Your task to perform on an android device: empty trash in the gmail app Image 0: 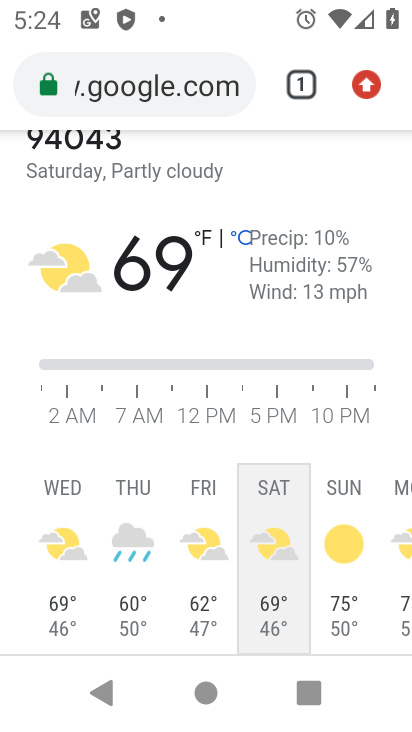
Step 0: press home button
Your task to perform on an android device: empty trash in the gmail app Image 1: 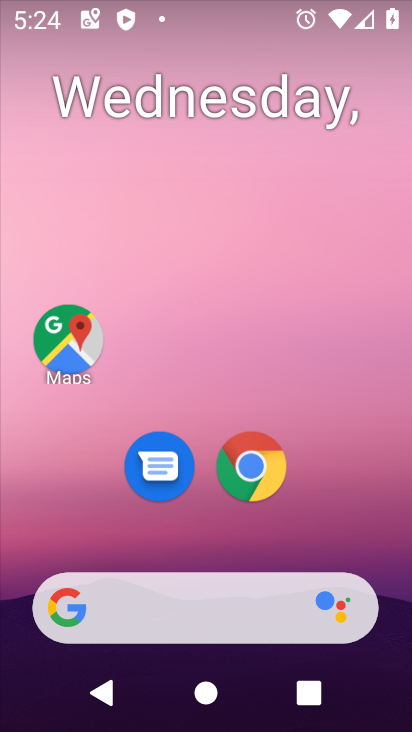
Step 1: drag from (211, 488) to (275, 108)
Your task to perform on an android device: empty trash in the gmail app Image 2: 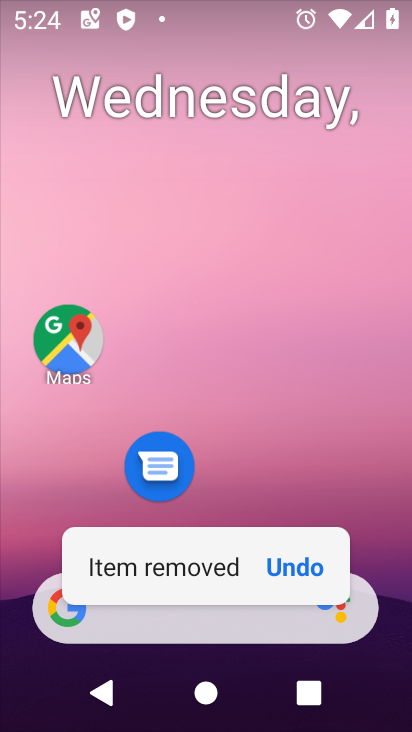
Step 2: drag from (314, 455) to (300, 76)
Your task to perform on an android device: empty trash in the gmail app Image 3: 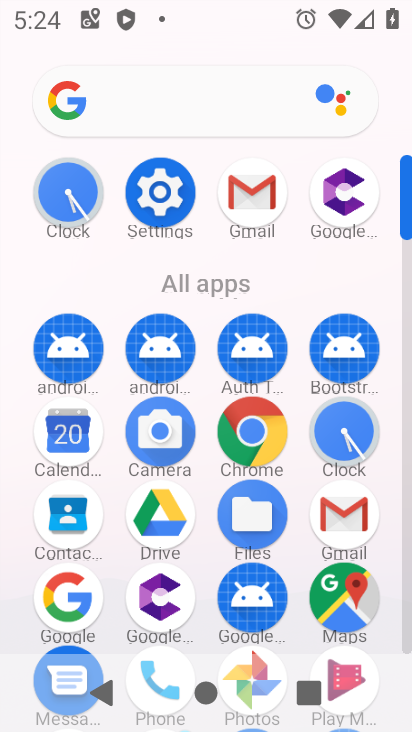
Step 3: click (361, 510)
Your task to perform on an android device: empty trash in the gmail app Image 4: 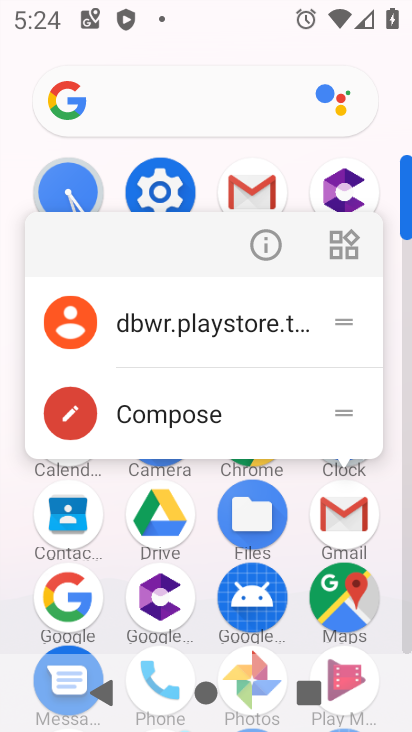
Step 4: click (338, 520)
Your task to perform on an android device: empty trash in the gmail app Image 5: 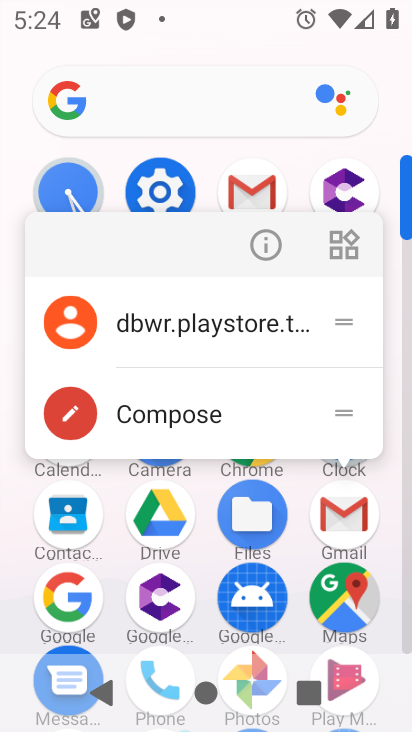
Step 5: click (344, 510)
Your task to perform on an android device: empty trash in the gmail app Image 6: 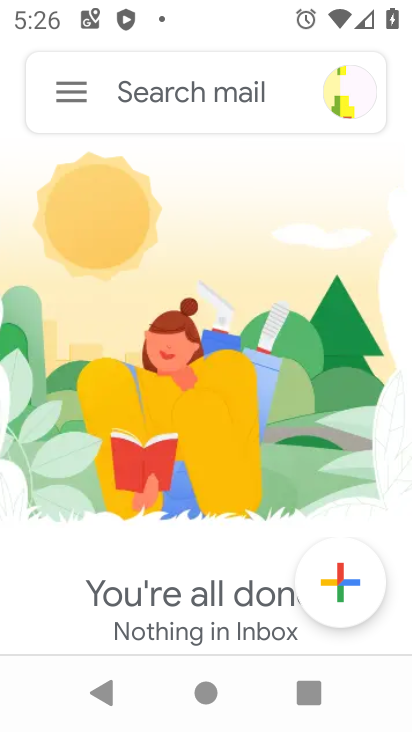
Step 6: click (64, 96)
Your task to perform on an android device: empty trash in the gmail app Image 7: 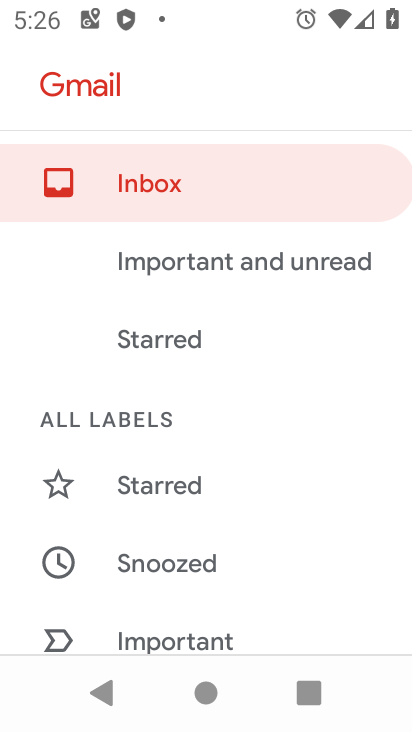
Step 7: drag from (314, 503) to (315, 62)
Your task to perform on an android device: empty trash in the gmail app Image 8: 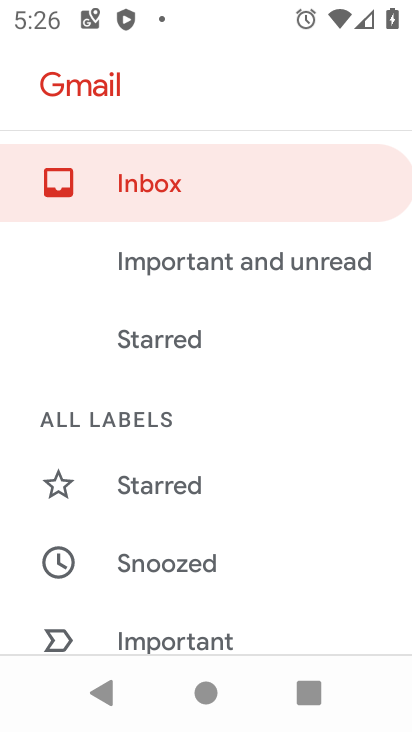
Step 8: drag from (306, 547) to (342, 275)
Your task to perform on an android device: empty trash in the gmail app Image 9: 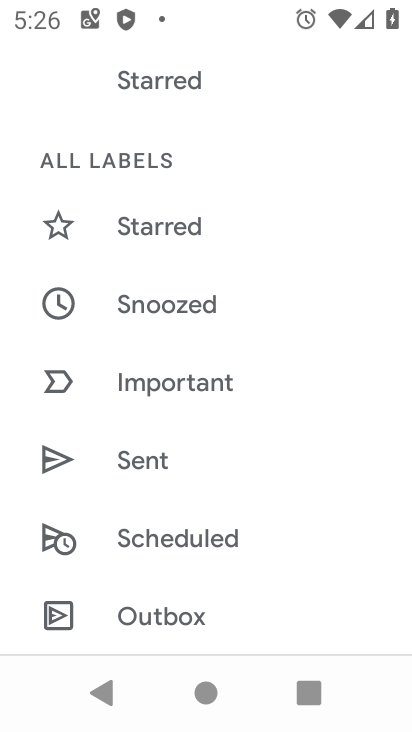
Step 9: drag from (336, 560) to (376, 207)
Your task to perform on an android device: empty trash in the gmail app Image 10: 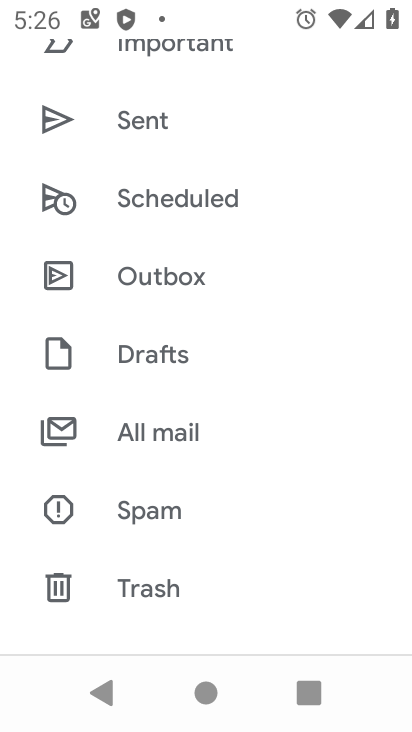
Step 10: click (123, 581)
Your task to perform on an android device: empty trash in the gmail app Image 11: 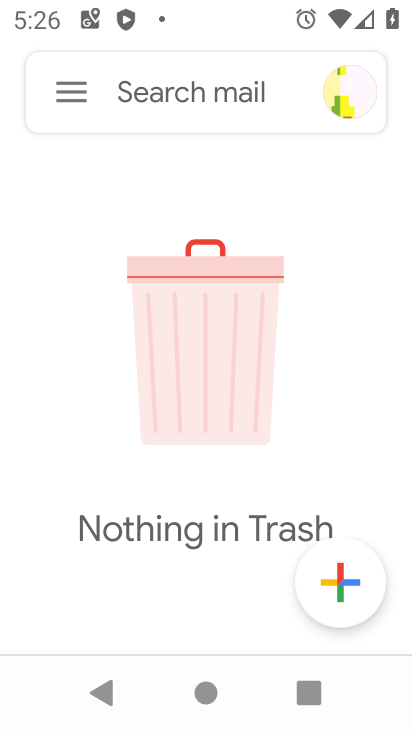
Step 11: task complete